Your task to perform on an android device: turn off airplane mode Image 0: 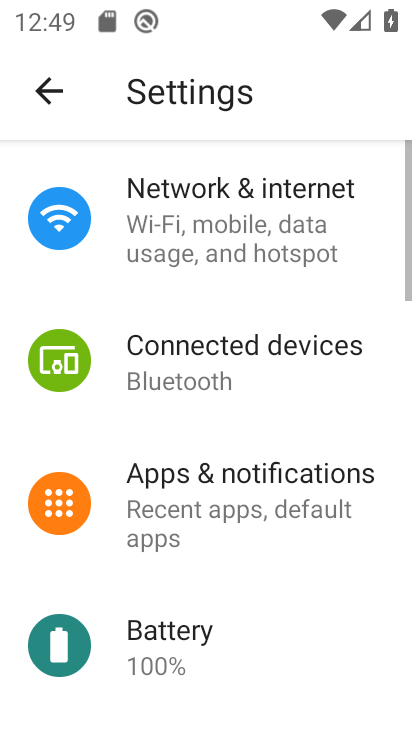
Step 0: click (299, 265)
Your task to perform on an android device: turn off airplane mode Image 1: 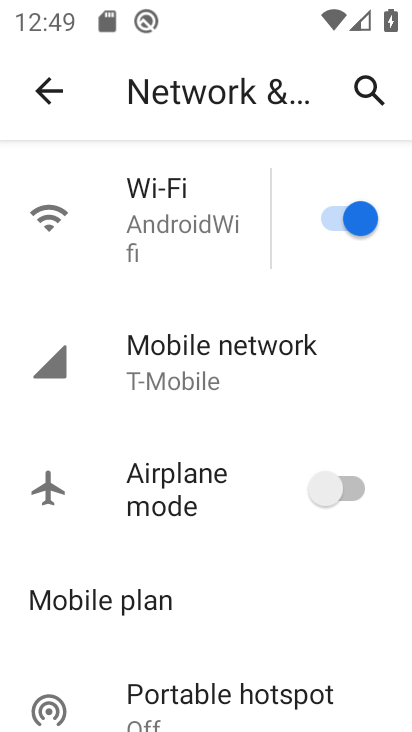
Step 1: task complete